Your task to perform on an android device: Search for vegetarian restaurants on Maps Image 0: 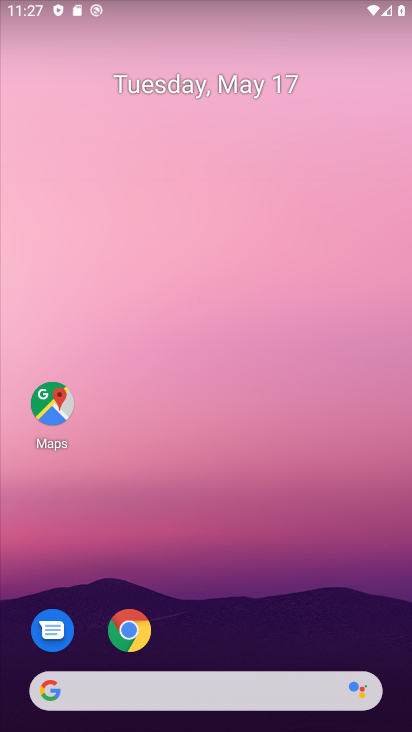
Step 0: click (44, 391)
Your task to perform on an android device: Search for vegetarian restaurants on Maps Image 1: 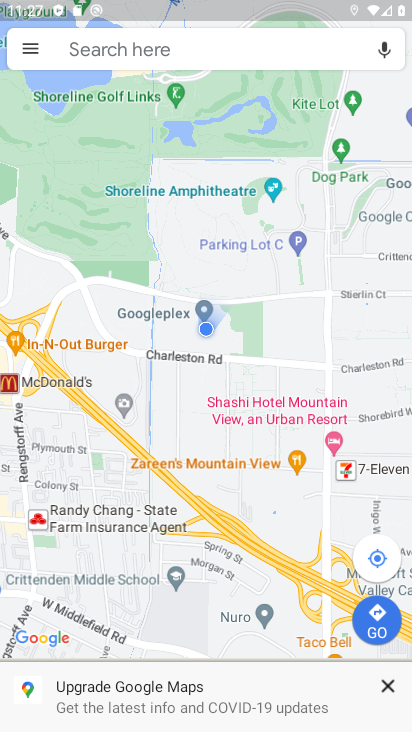
Step 1: click (111, 52)
Your task to perform on an android device: Search for vegetarian restaurants on Maps Image 2: 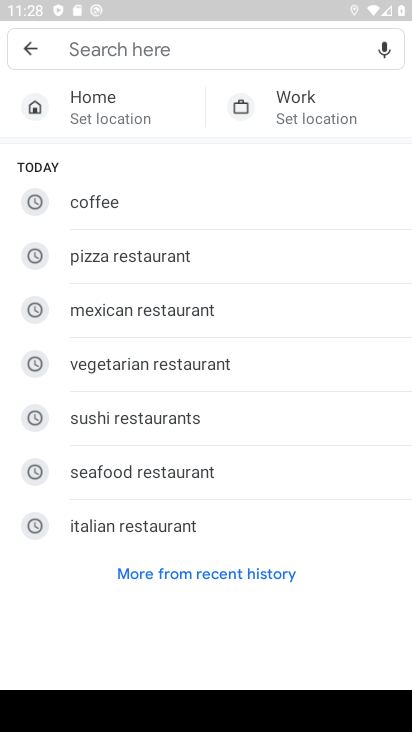
Step 2: click (135, 370)
Your task to perform on an android device: Search for vegetarian restaurants on Maps Image 3: 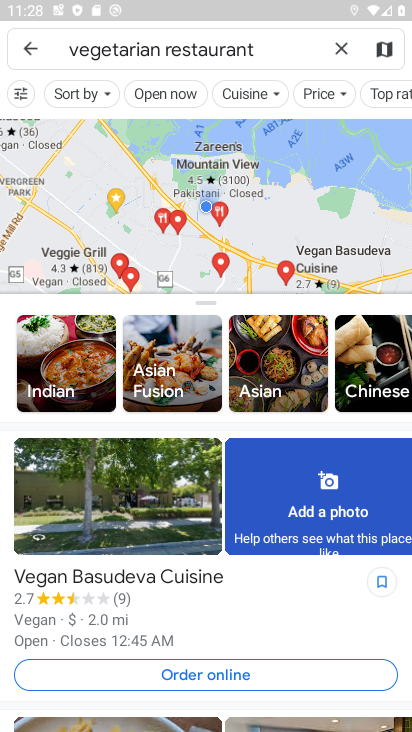
Step 3: task complete